Your task to perform on an android device: Show the shopping cart on target.com. Search for sony triple a on target.com, select the first entry, and add it to the cart. Image 0: 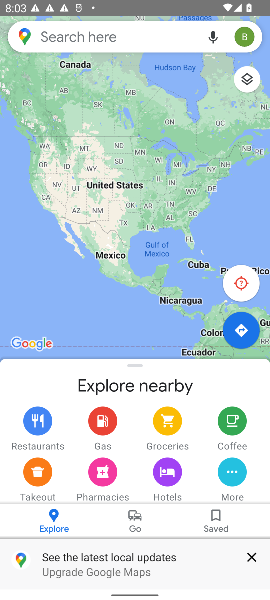
Step 0: press home button
Your task to perform on an android device: Show the shopping cart on target.com. Search for sony triple a on target.com, select the first entry, and add it to the cart. Image 1: 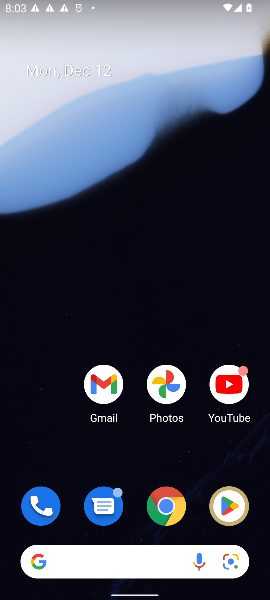
Step 1: click (111, 563)
Your task to perform on an android device: Show the shopping cart on target.com. Search for sony triple a on target.com, select the first entry, and add it to the cart. Image 2: 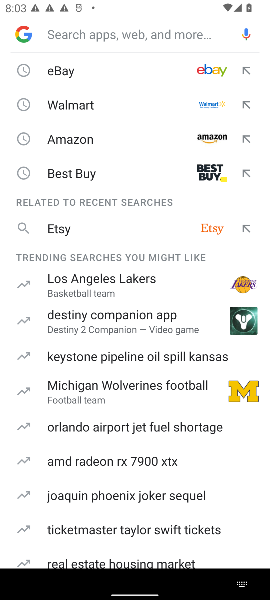
Step 2: type "target"
Your task to perform on an android device: Show the shopping cart on target.com. Search for sony triple a on target.com, select the first entry, and add it to the cart. Image 3: 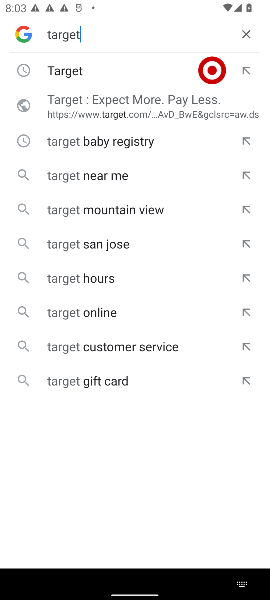
Step 3: click (62, 67)
Your task to perform on an android device: Show the shopping cart on target.com. Search for sony triple a on target.com, select the first entry, and add it to the cart. Image 4: 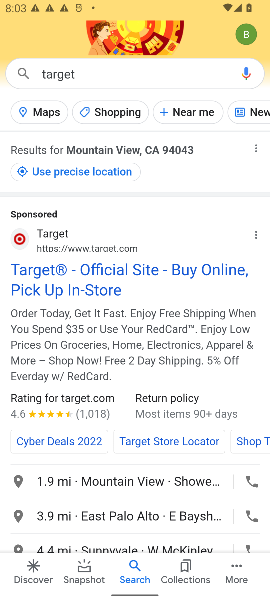
Step 4: click (79, 258)
Your task to perform on an android device: Show the shopping cart on target.com. Search for sony triple a on target.com, select the first entry, and add it to the cart. Image 5: 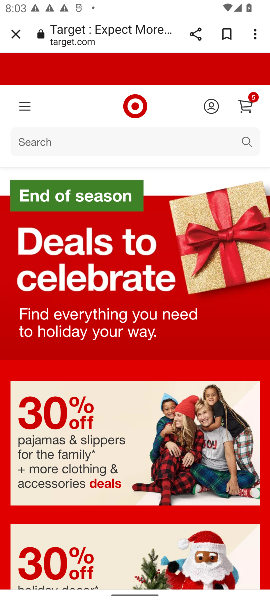
Step 5: click (69, 137)
Your task to perform on an android device: Show the shopping cart on target.com. Search for sony triple a on target.com, select the first entry, and add it to the cart. Image 6: 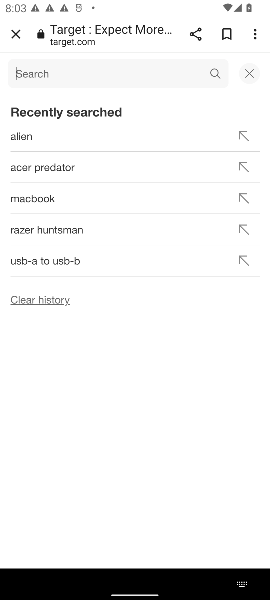
Step 6: type "sony triple a"
Your task to perform on an android device: Show the shopping cart on target.com. Search for sony triple a on target.com, select the first entry, and add it to the cart. Image 7: 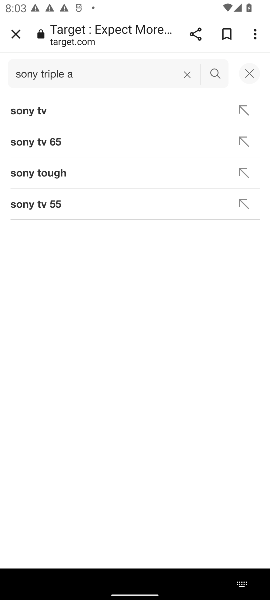
Step 7: click (205, 79)
Your task to perform on an android device: Show the shopping cart on target.com. Search for sony triple a on target.com, select the first entry, and add it to the cart. Image 8: 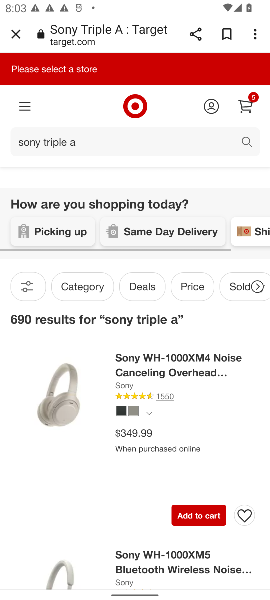
Step 8: task complete